Your task to perform on an android device: Search for seafood restaurants on Google Maps Image 0: 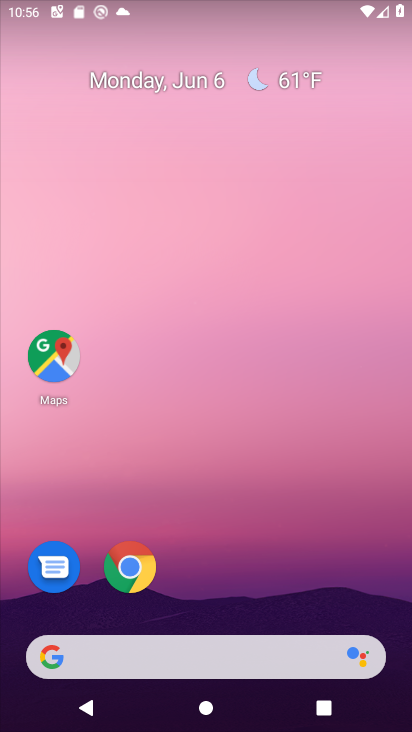
Step 0: drag from (247, 731) to (235, 124)
Your task to perform on an android device: Search for seafood restaurants on Google Maps Image 1: 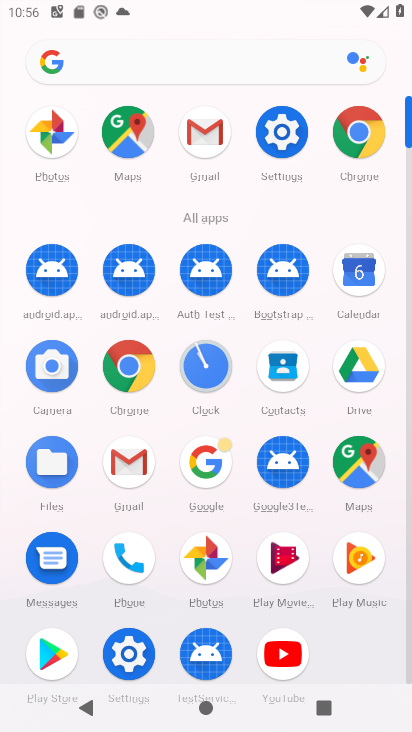
Step 1: click (362, 461)
Your task to perform on an android device: Search for seafood restaurants on Google Maps Image 2: 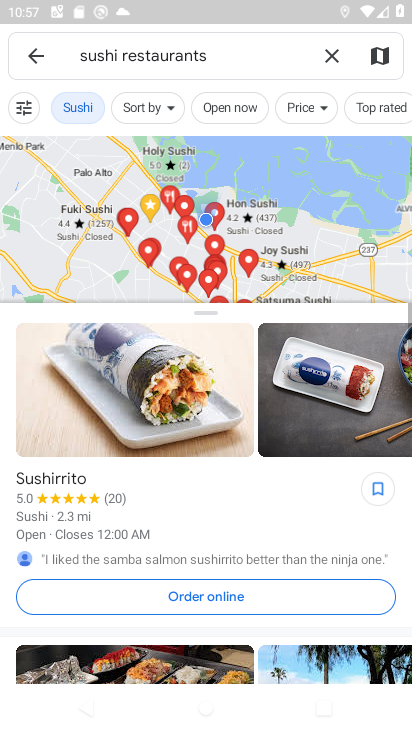
Step 2: click (270, 55)
Your task to perform on an android device: Search for seafood restaurants on Google Maps Image 3: 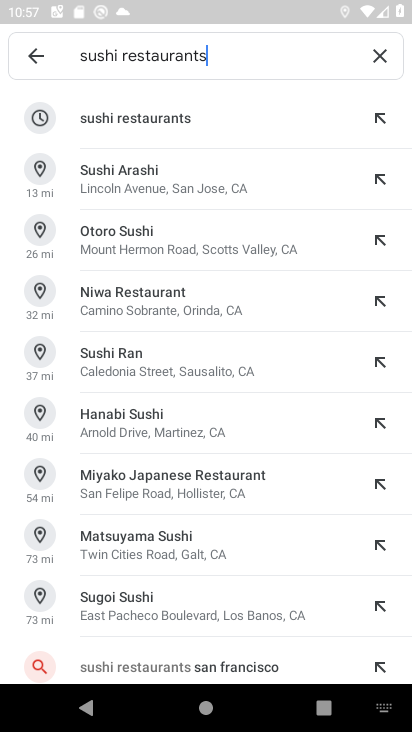
Step 3: click (378, 49)
Your task to perform on an android device: Search for seafood restaurants on Google Maps Image 4: 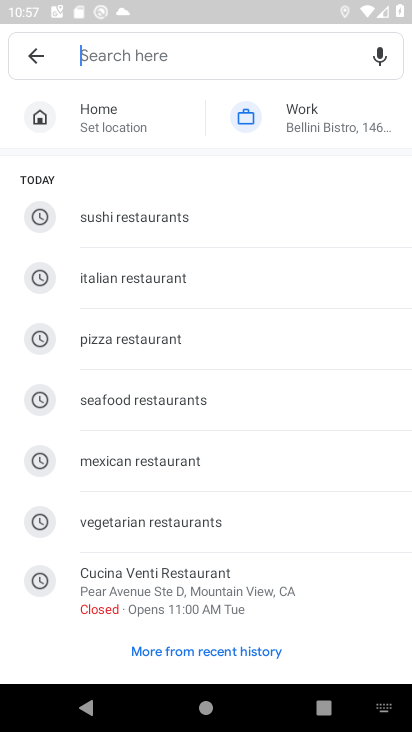
Step 4: click (199, 62)
Your task to perform on an android device: Search for seafood restaurants on Google Maps Image 5: 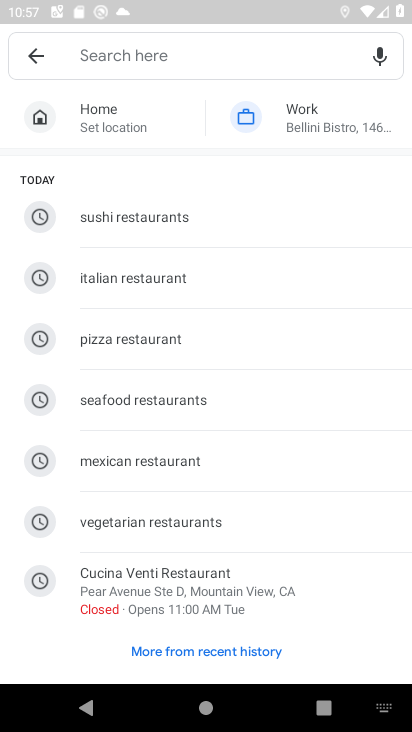
Step 5: type "seafood restaurants"
Your task to perform on an android device: Search for seafood restaurants on Google Maps Image 6: 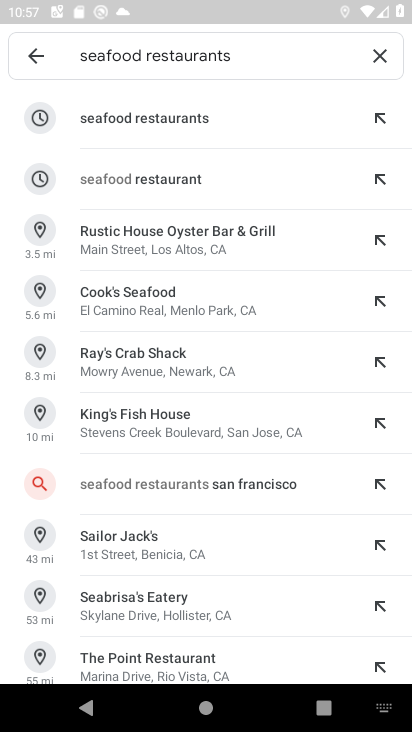
Step 6: click (139, 120)
Your task to perform on an android device: Search for seafood restaurants on Google Maps Image 7: 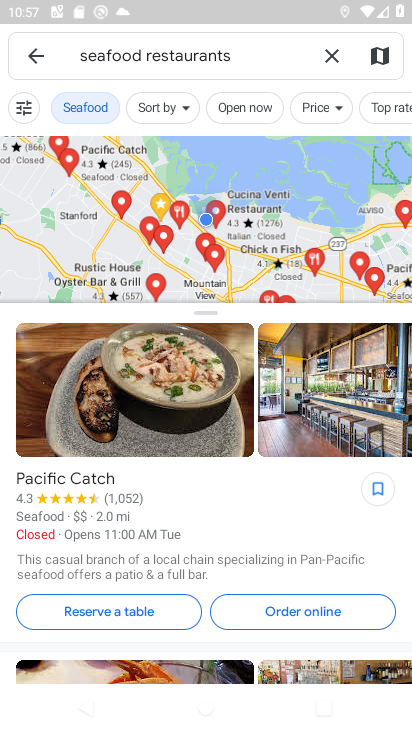
Step 7: task complete